Your task to perform on an android device: turn off translation in the chrome app Image 0: 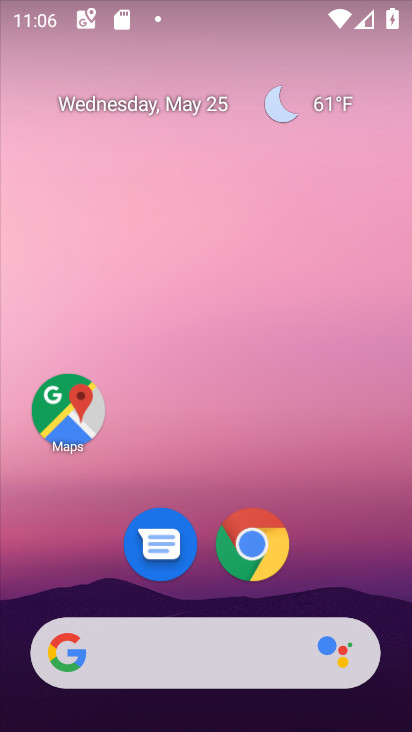
Step 0: click (255, 546)
Your task to perform on an android device: turn off translation in the chrome app Image 1: 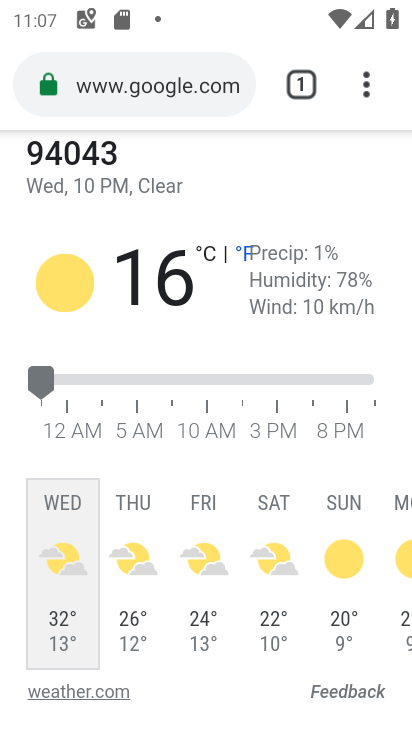
Step 1: click (364, 88)
Your task to perform on an android device: turn off translation in the chrome app Image 2: 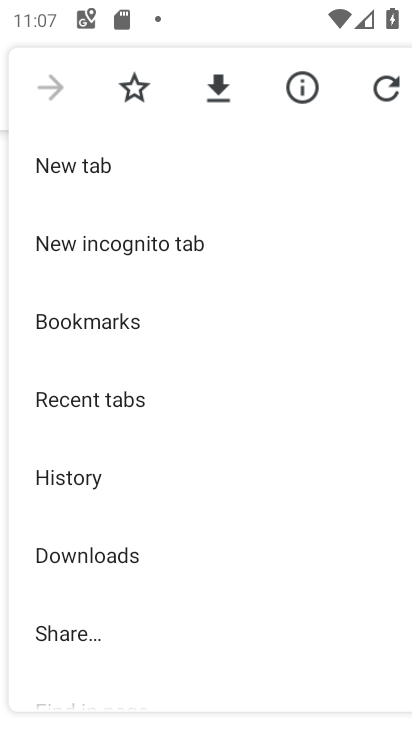
Step 2: drag from (177, 622) to (139, 205)
Your task to perform on an android device: turn off translation in the chrome app Image 3: 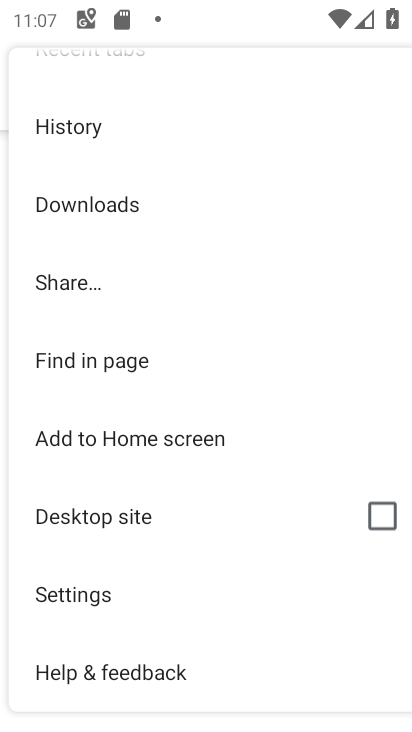
Step 3: click (85, 592)
Your task to perform on an android device: turn off translation in the chrome app Image 4: 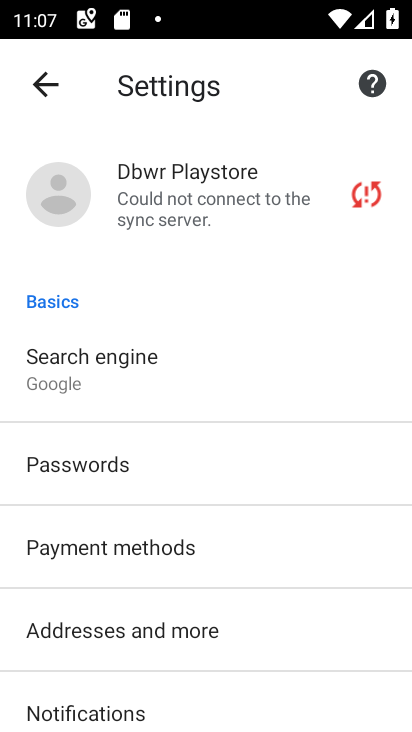
Step 4: drag from (163, 673) to (90, 235)
Your task to perform on an android device: turn off translation in the chrome app Image 5: 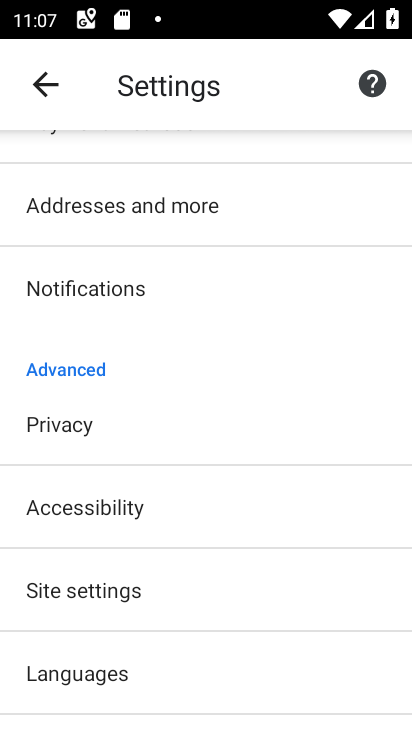
Step 5: click (78, 666)
Your task to perform on an android device: turn off translation in the chrome app Image 6: 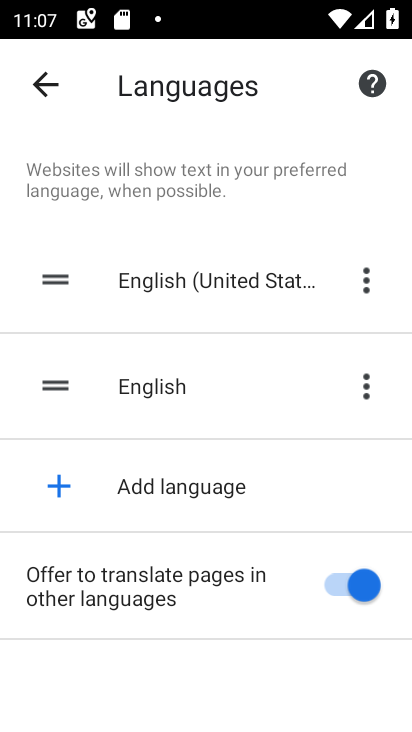
Step 6: click (337, 580)
Your task to perform on an android device: turn off translation in the chrome app Image 7: 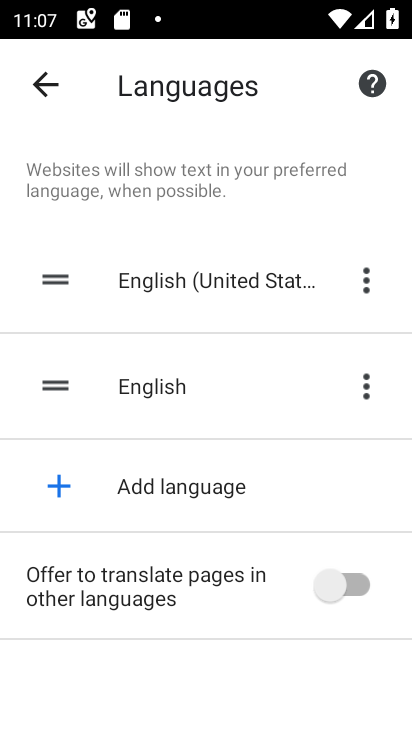
Step 7: task complete